Your task to perform on an android device: Toggle the flashlight Image 0: 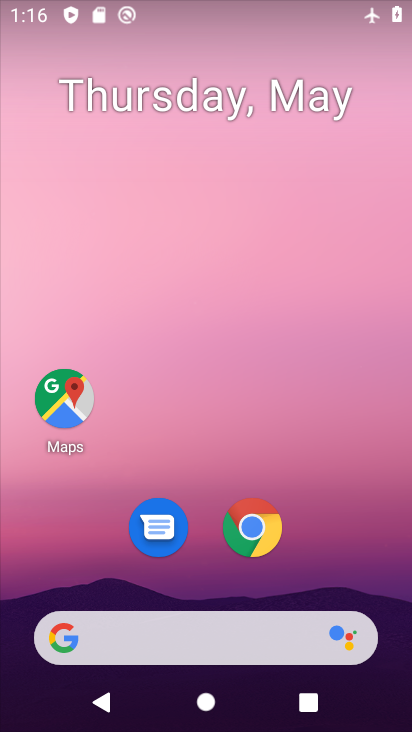
Step 0: drag from (217, 551) to (247, 151)
Your task to perform on an android device: Toggle the flashlight Image 1: 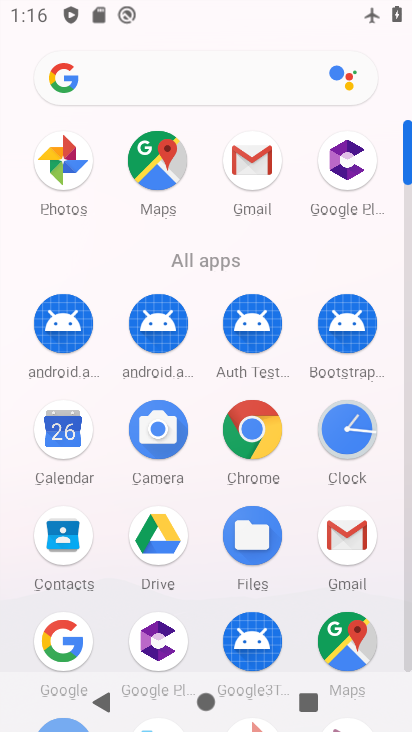
Step 1: drag from (219, 578) to (238, 286)
Your task to perform on an android device: Toggle the flashlight Image 2: 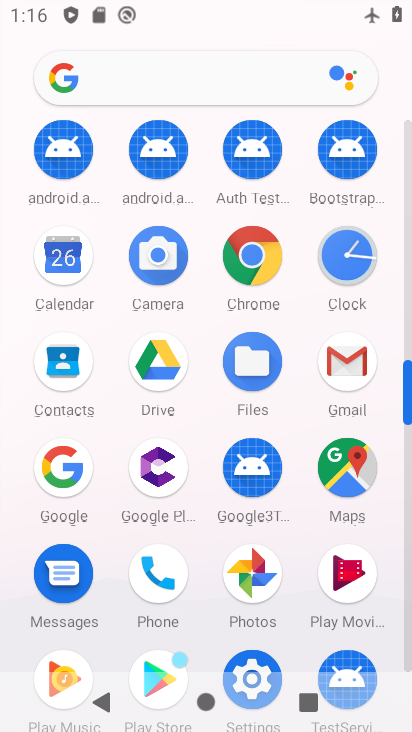
Step 2: click (255, 660)
Your task to perform on an android device: Toggle the flashlight Image 3: 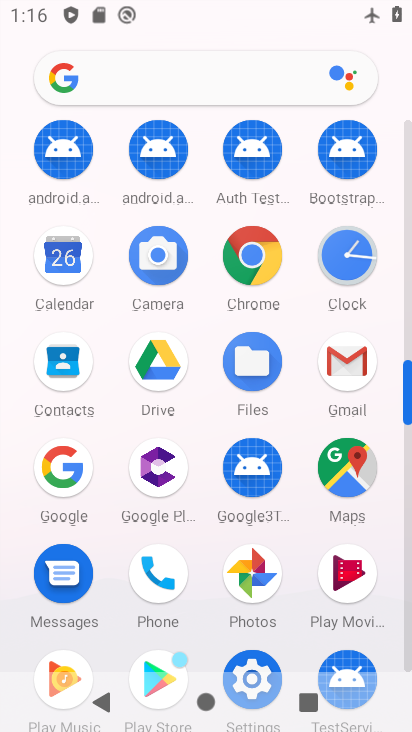
Step 3: click (255, 660)
Your task to perform on an android device: Toggle the flashlight Image 4: 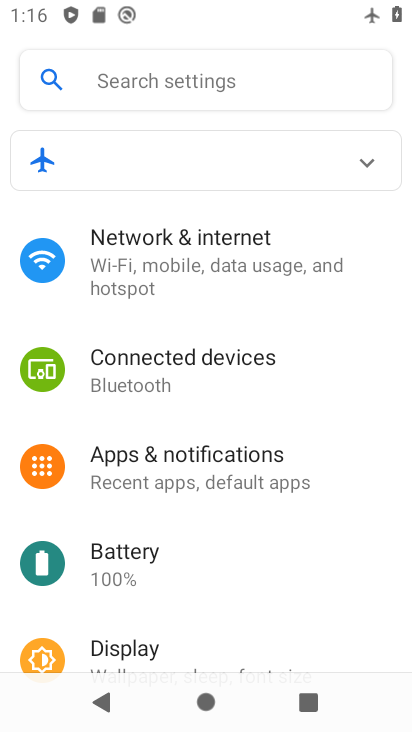
Step 4: click (157, 81)
Your task to perform on an android device: Toggle the flashlight Image 5: 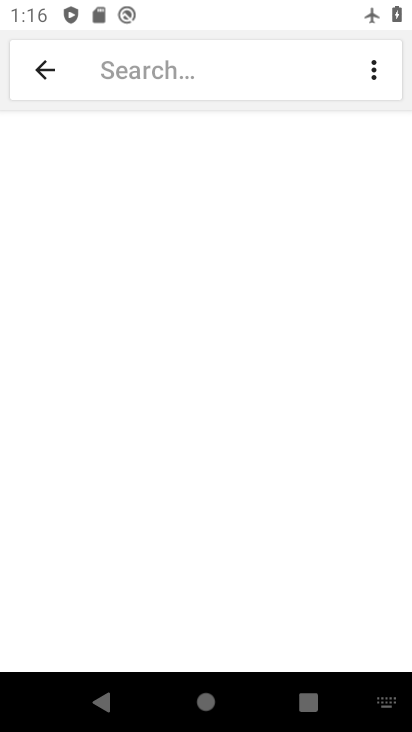
Step 5: type "flashlight"
Your task to perform on an android device: Toggle the flashlight Image 6: 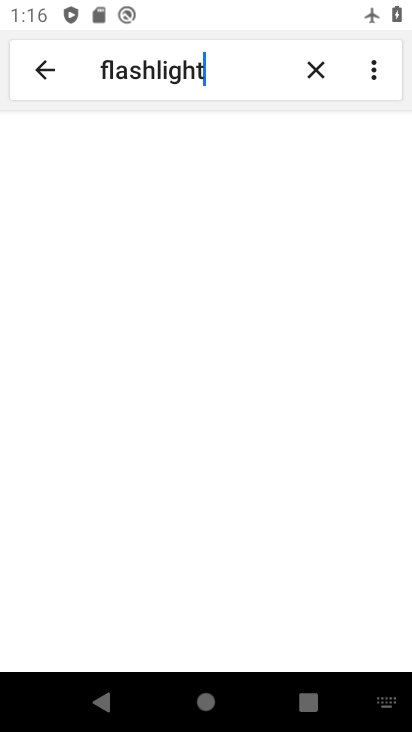
Step 6: type ""
Your task to perform on an android device: Toggle the flashlight Image 7: 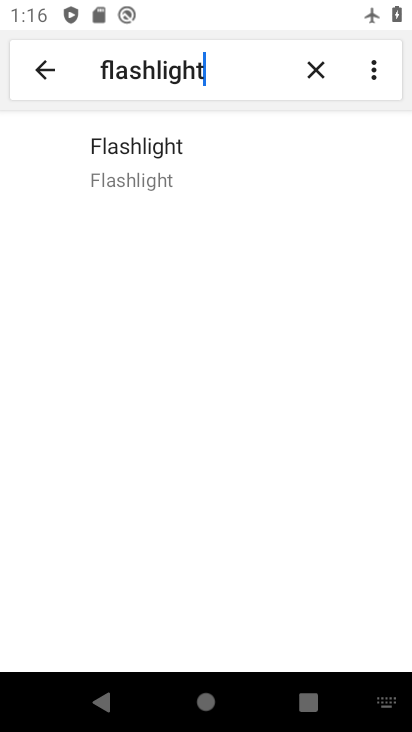
Step 7: click (121, 163)
Your task to perform on an android device: Toggle the flashlight Image 8: 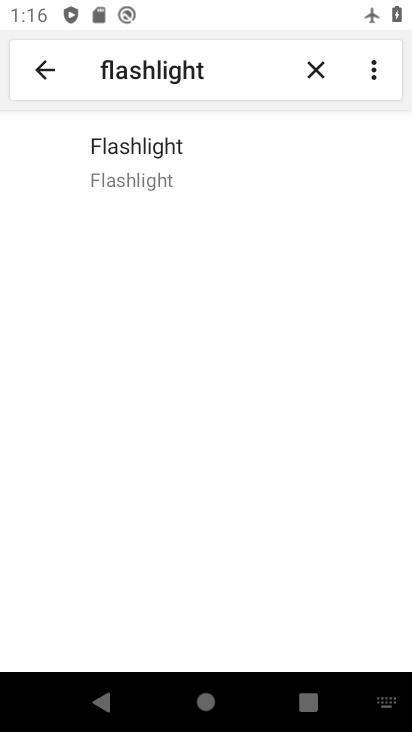
Step 8: task complete